Your task to perform on an android device: Go to notification settings Image 0: 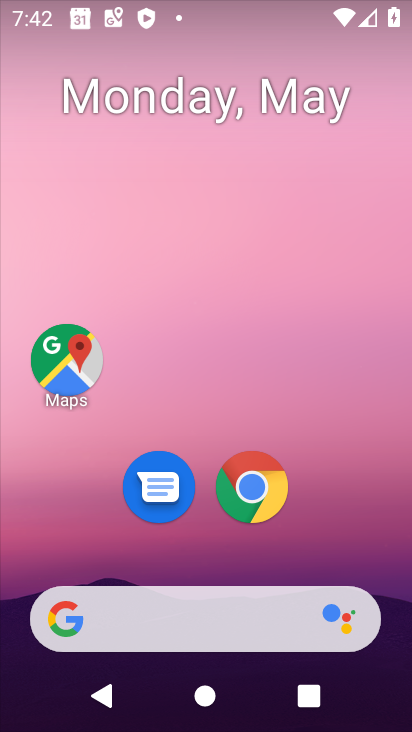
Step 0: drag from (375, 434) to (373, 110)
Your task to perform on an android device: Go to notification settings Image 1: 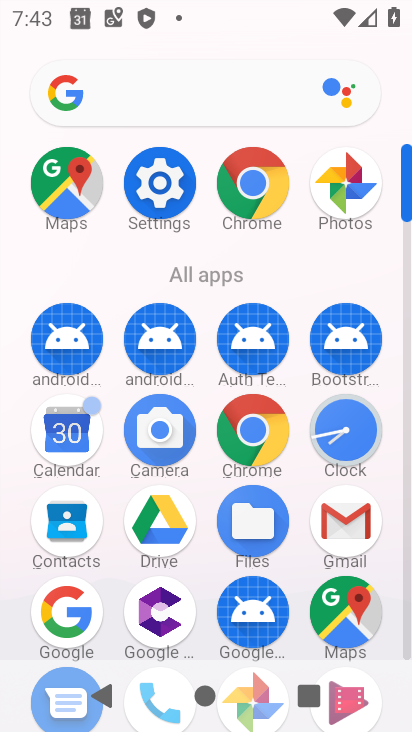
Step 1: click (166, 209)
Your task to perform on an android device: Go to notification settings Image 2: 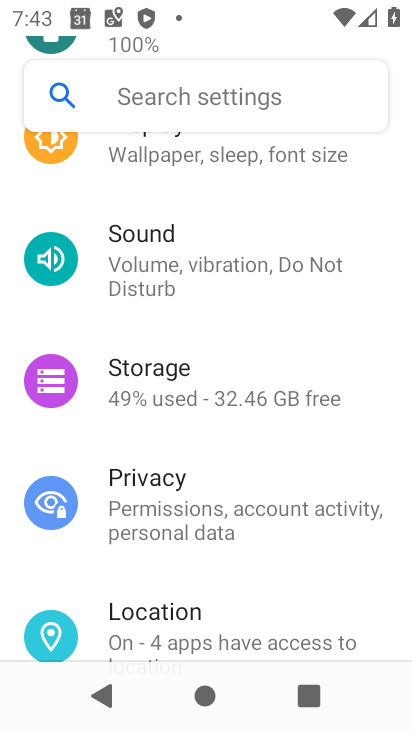
Step 2: drag from (368, 211) to (361, 363)
Your task to perform on an android device: Go to notification settings Image 3: 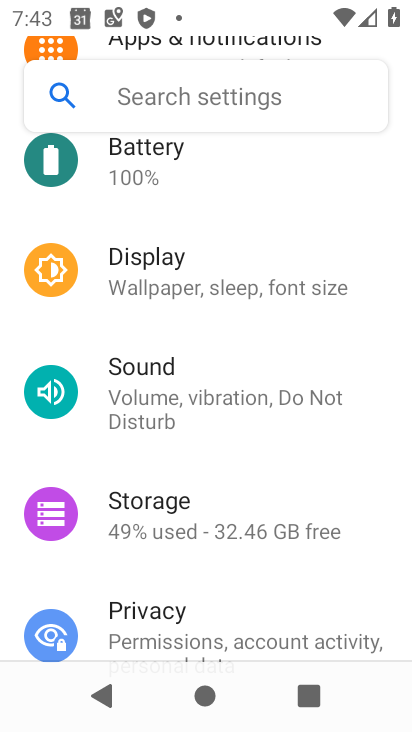
Step 3: drag from (370, 192) to (375, 318)
Your task to perform on an android device: Go to notification settings Image 4: 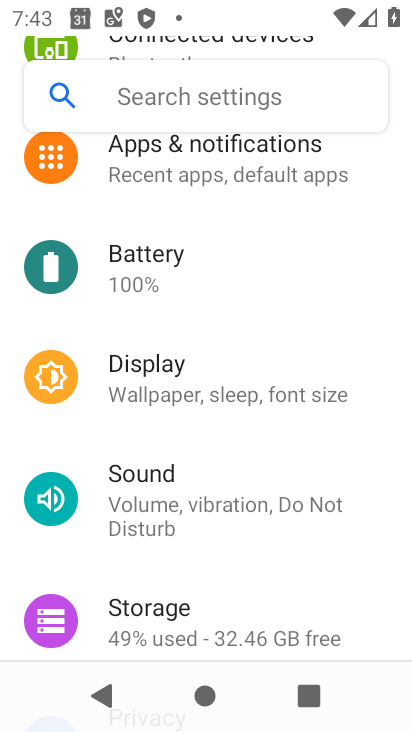
Step 4: drag from (367, 180) to (353, 329)
Your task to perform on an android device: Go to notification settings Image 5: 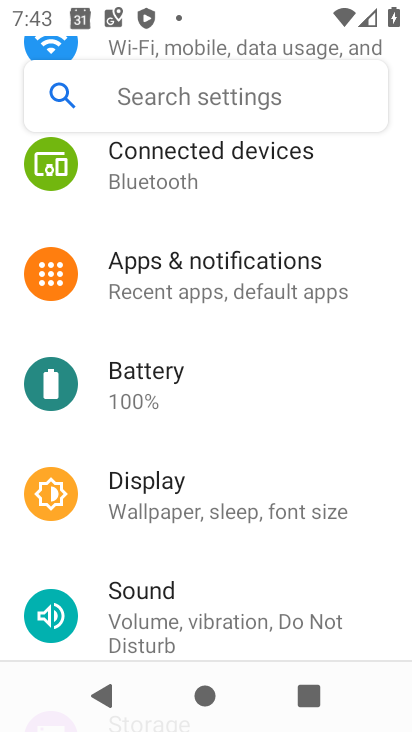
Step 5: drag from (354, 199) to (364, 331)
Your task to perform on an android device: Go to notification settings Image 6: 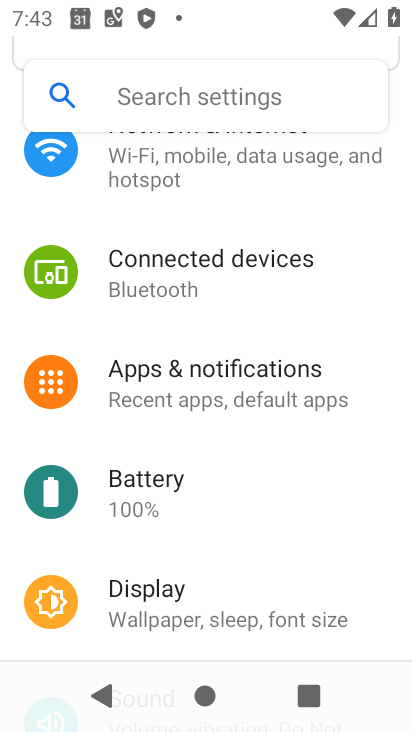
Step 6: drag from (367, 197) to (364, 323)
Your task to perform on an android device: Go to notification settings Image 7: 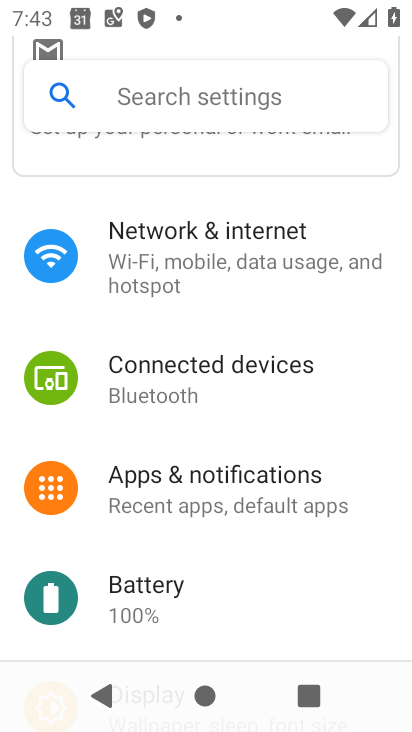
Step 7: drag from (351, 206) to (347, 367)
Your task to perform on an android device: Go to notification settings Image 8: 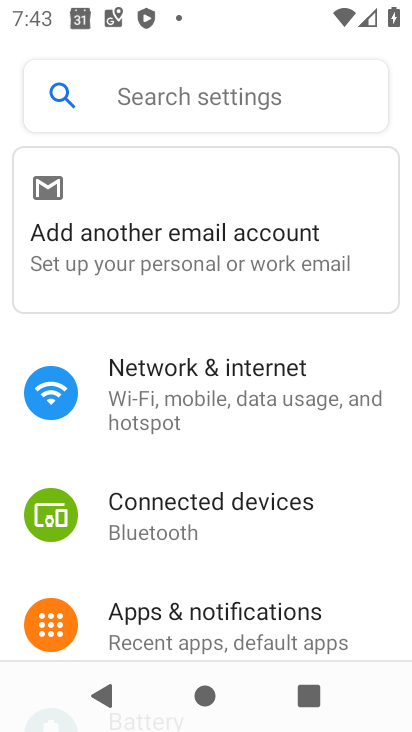
Step 8: drag from (349, 449) to (359, 278)
Your task to perform on an android device: Go to notification settings Image 9: 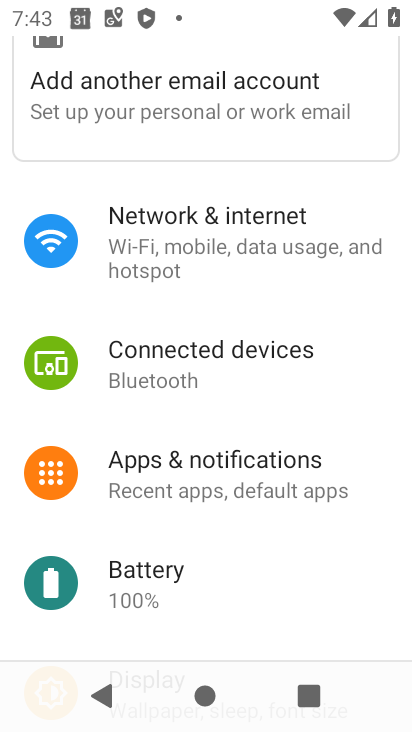
Step 9: drag from (354, 416) to (355, 340)
Your task to perform on an android device: Go to notification settings Image 10: 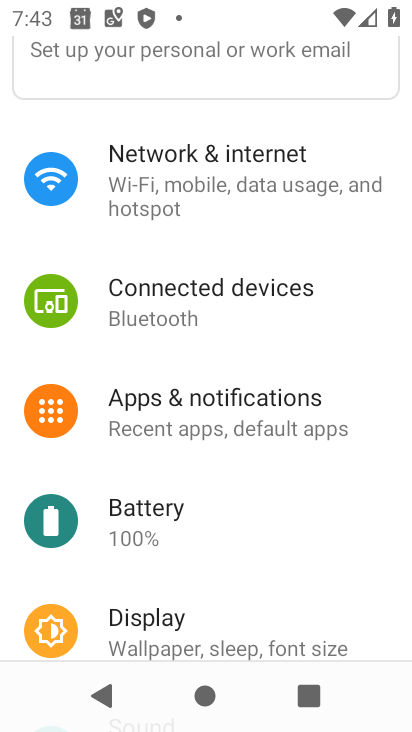
Step 10: drag from (363, 475) to (370, 331)
Your task to perform on an android device: Go to notification settings Image 11: 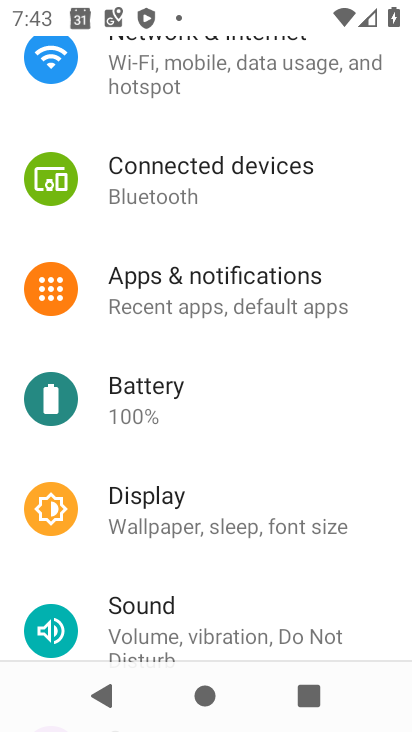
Step 11: click (305, 289)
Your task to perform on an android device: Go to notification settings Image 12: 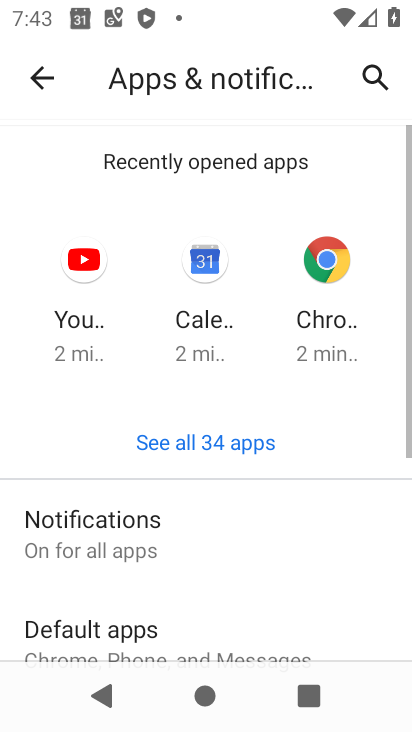
Step 12: drag from (307, 500) to (325, 336)
Your task to perform on an android device: Go to notification settings Image 13: 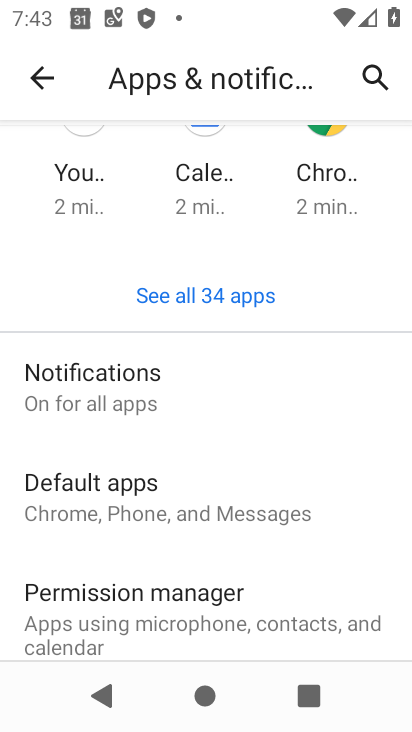
Step 13: drag from (330, 549) to (338, 404)
Your task to perform on an android device: Go to notification settings Image 14: 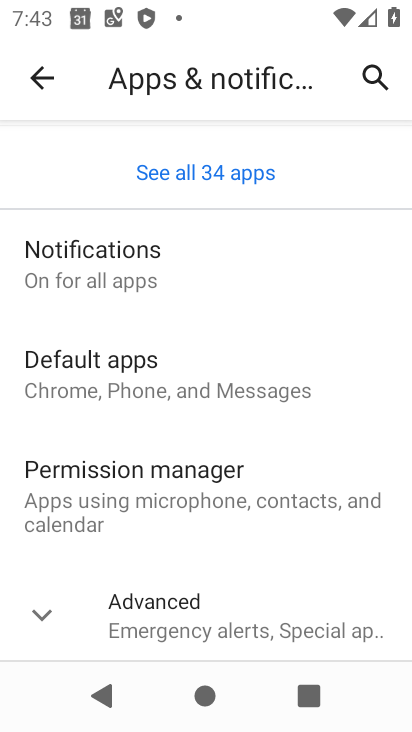
Step 14: click (157, 263)
Your task to perform on an android device: Go to notification settings Image 15: 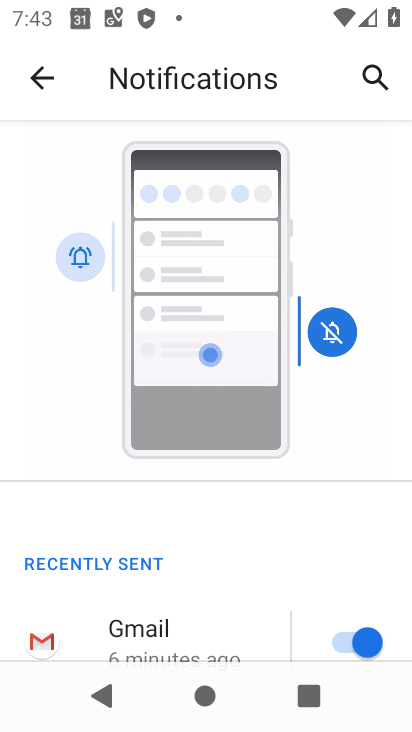
Step 15: task complete